Your task to perform on an android device: What's on my calendar today? Image 0: 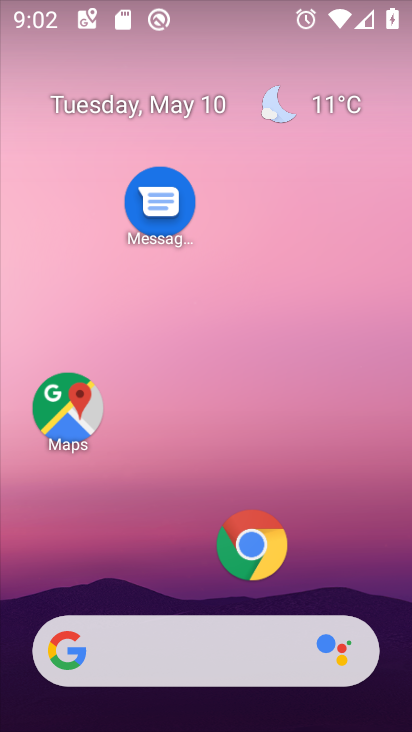
Step 0: drag from (212, 591) to (343, 54)
Your task to perform on an android device: What's on my calendar today? Image 1: 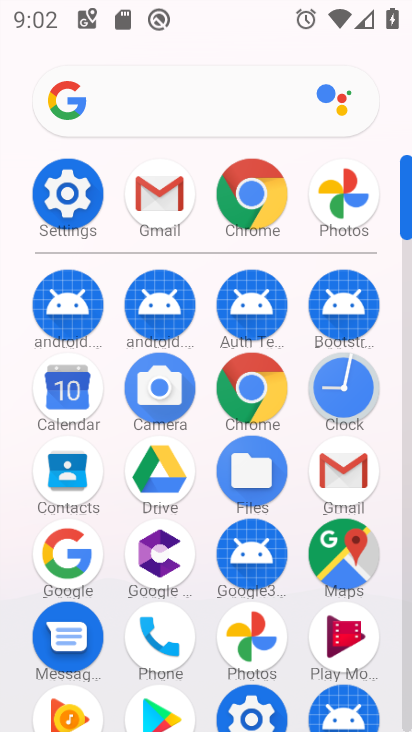
Step 1: click (66, 380)
Your task to perform on an android device: What's on my calendar today? Image 2: 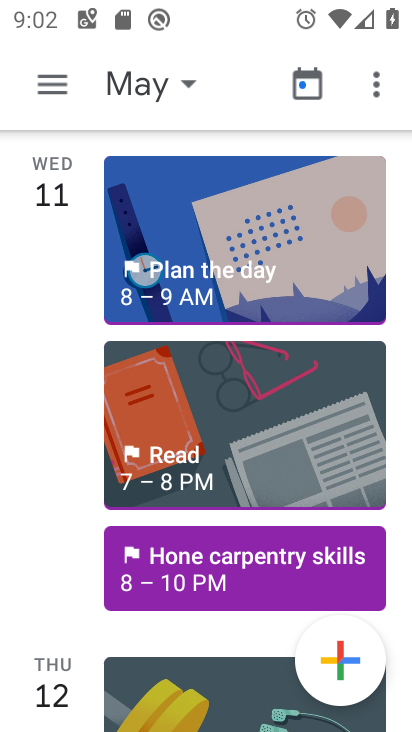
Step 2: drag from (69, 206) to (87, 728)
Your task to perform on an android device: What's on my calendar today? Image 3: 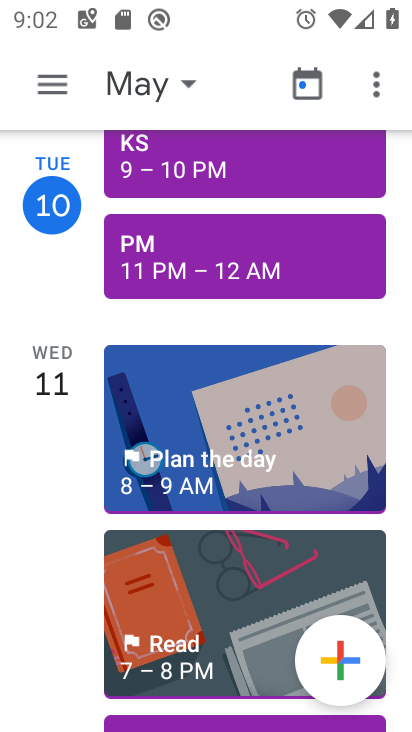
Step 3: click (71, 256)
Your task to perform on an android device: What's on my calendar today? Image 4: 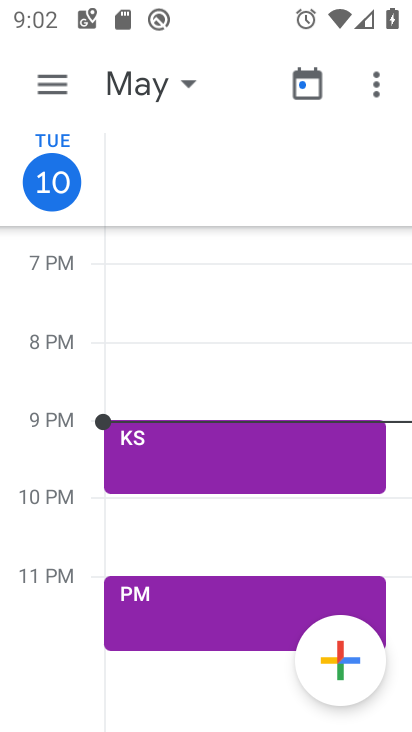
Step 4: task complete